Your task to perform on an android device: Open Amazon Image 0: 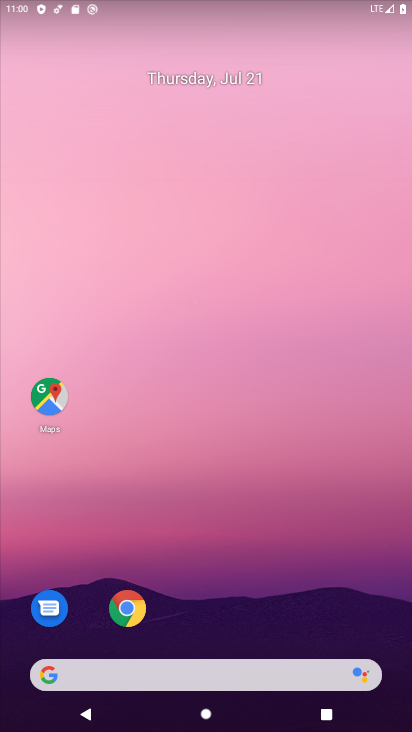
Step 0: drag from (227, 578) to (298, 196)
Your task to perform on an android device: Open Amazon Image 1: 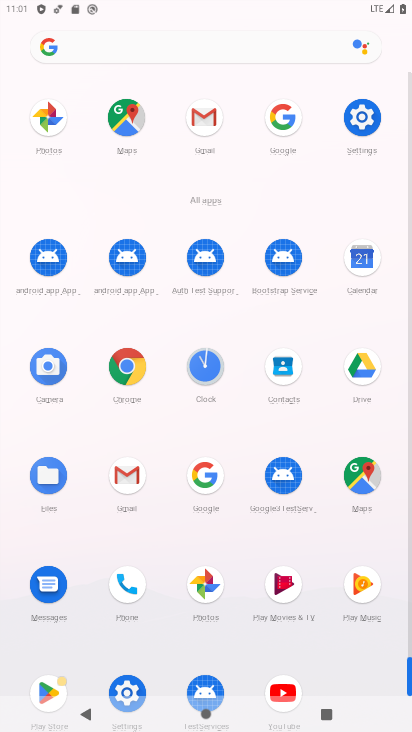
Step 1: click (123, 368)
Your task to perform on an android device: Open Amazon Image 2: 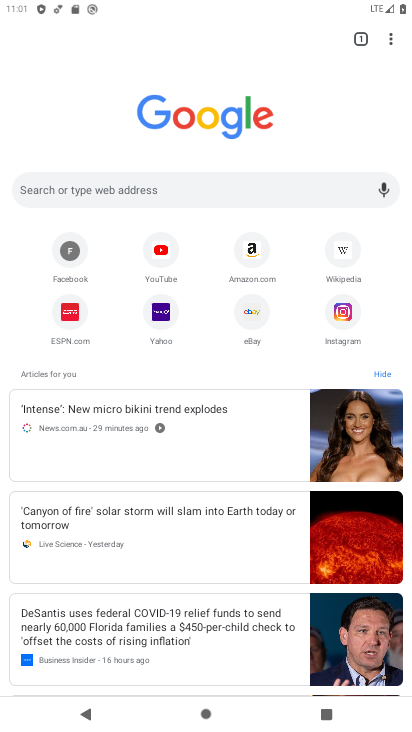
Step 2: click (252, 241)
Your task to perform on an android device: Open Amazon Image 3: 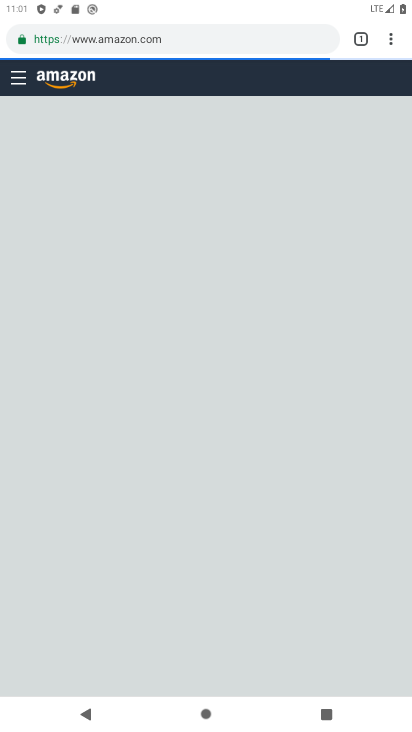
Step 3: task complete